Your task to perform on an android device: Open Chrome and go to settings Image 0: 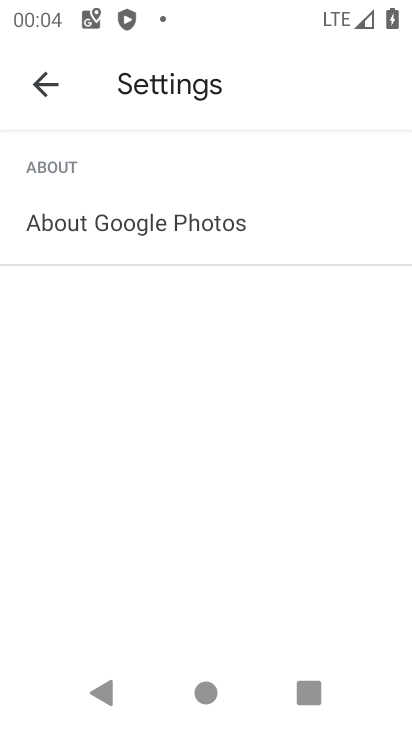
Step 0: press home button
Your task to perform on an android device: Open Chrome and go to settings Image 1: 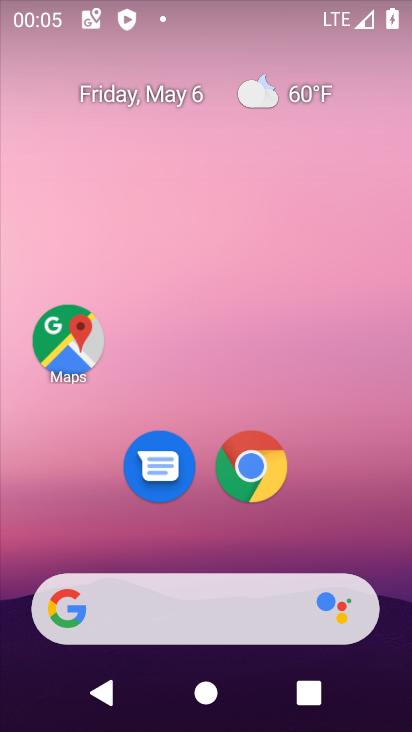
Step 1: click (260, 465)
Your task to perform on an android device: Open Chrome and go to settings Image 2: 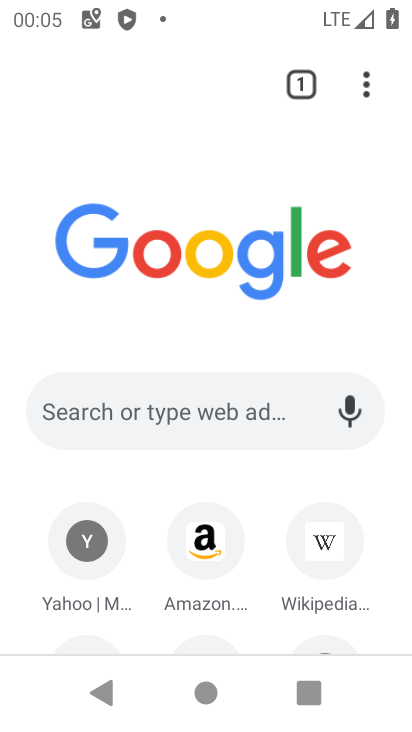
Step 2: click (361, 86)
Your task to perform on an android device: Open Chrome and go to settings Image 3: 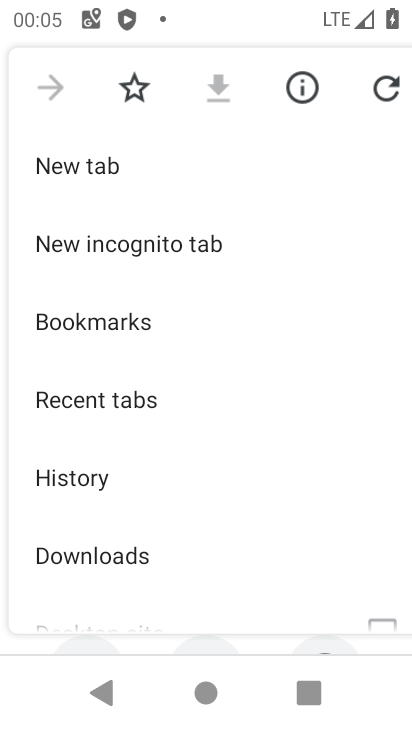
Step 3: drag from (93, 575) to (101, 212)
Your task to perform on an android device: Open Chrome and go to settings Image 4: 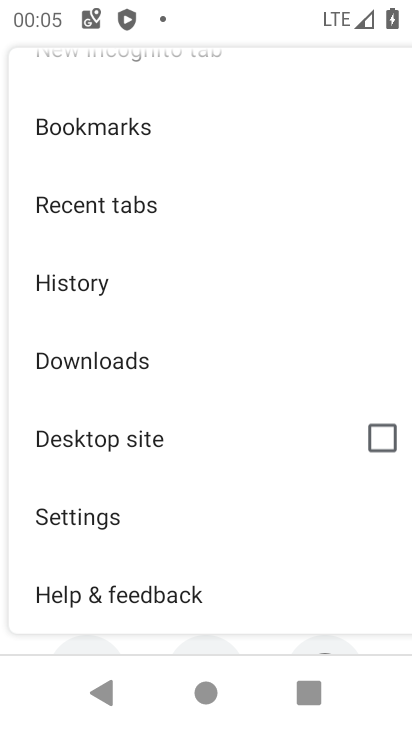
Step 4: click (102, 520)
Your task to perform on an android device: Open Chrome and go to settings Image 5: 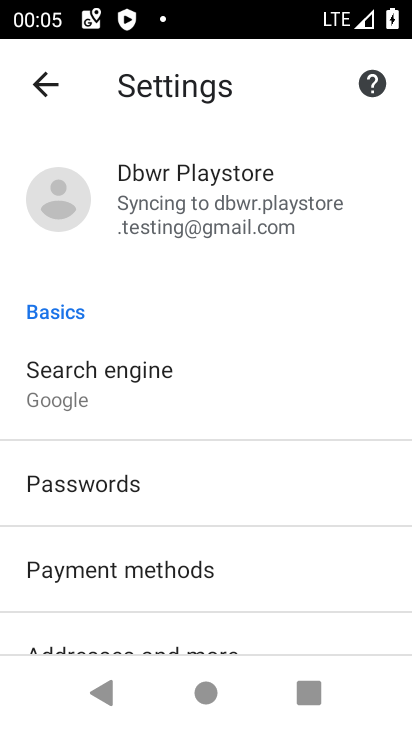
Step 5: task complete